Your task to perform on an android device: turn off priority inbox in the gmail app Image 0: 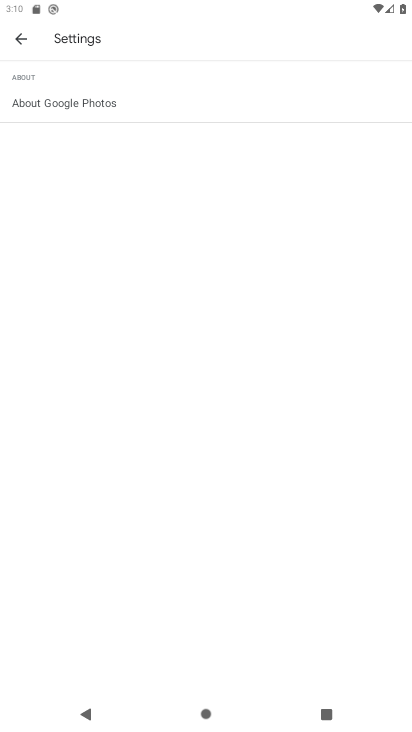
Step 0: press home button
Your task to perform on an android device: turn off priority inbox in the gmail app Image 1: 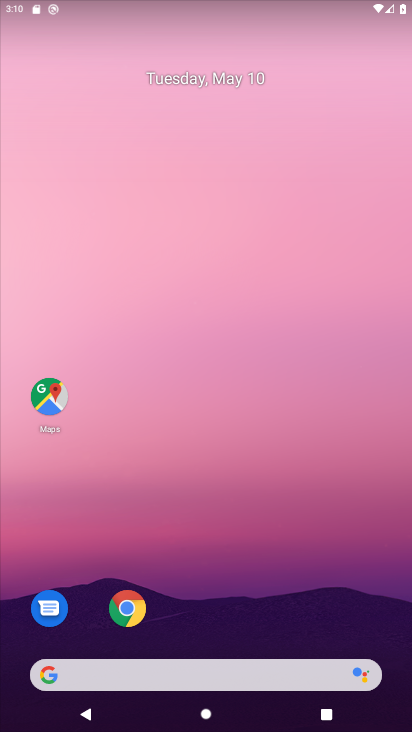
Step 1: drag from (176, 645) to (243, 171)
Your task to perform on an android device: turn off priority inbox in the gmail app Image 2: 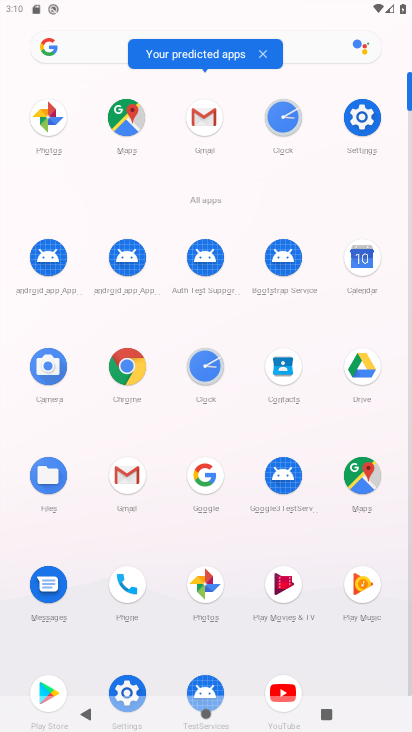
Step 2: click (128, 475)
Your task to perform on an android device: turn off priority inbox in the gmail app Image 3: 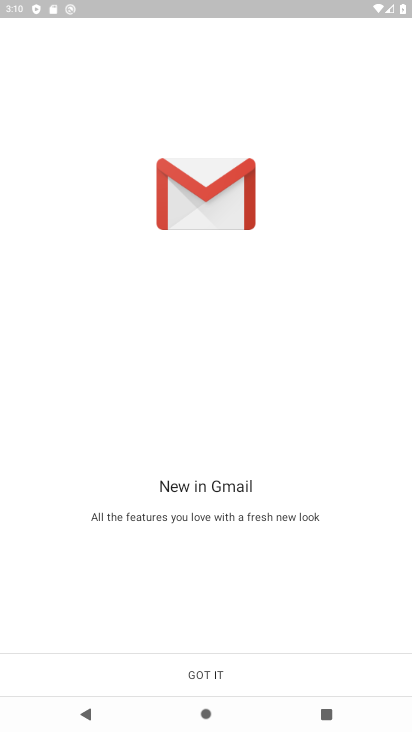
Step 3: click (217, 670)
Your task to perform on an android device: turn off priority inbox in the gmail app Image 4: 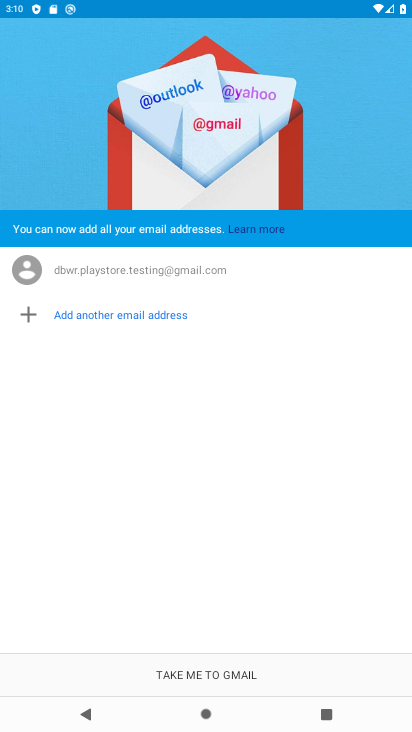
Step 4: click (217, 670)
Your task to perform on an android device: turn off priority inbox in the gmail app Image 5: 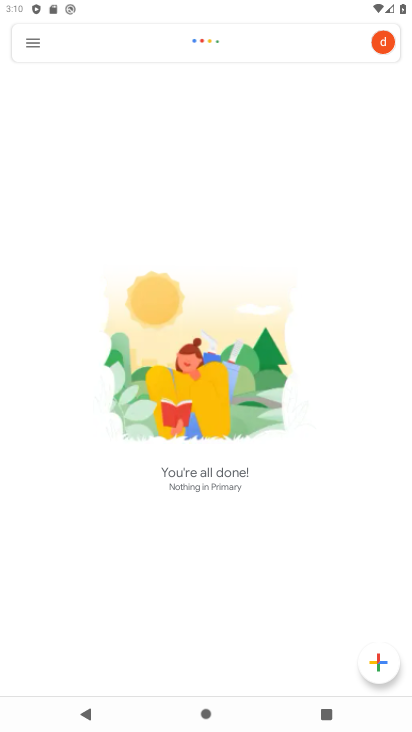
Step 5: click (41, 46)
Your task to perform on an android device: turn off priority inbox in the gmail app Image 6: 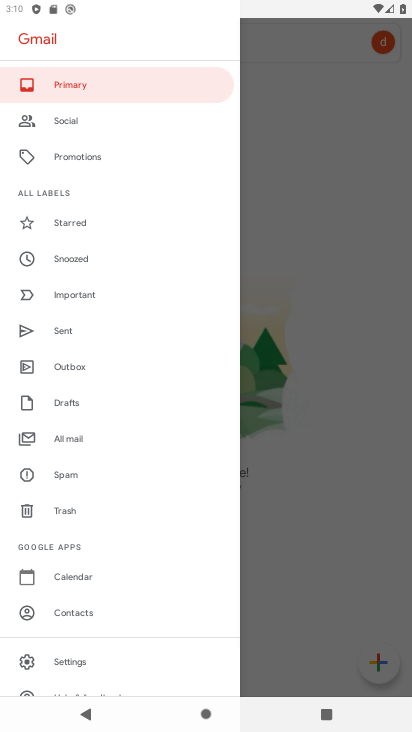
Step 6: drag from (133, 646) to (174, 457)
Your task to perform on an android device: turn off priority inbox in the gmail app Image 7: 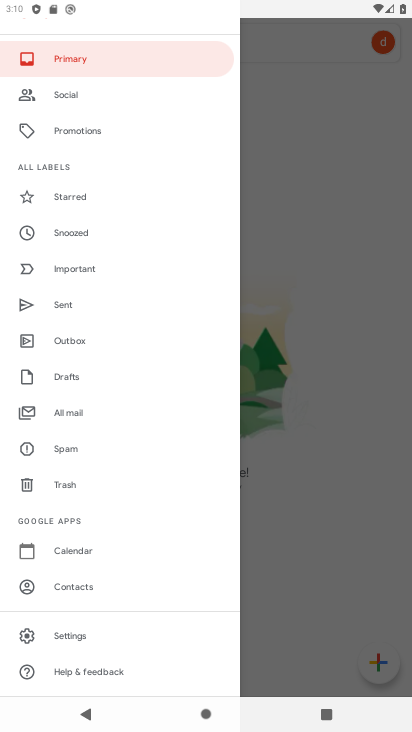
Step 7: click (107, 632)
Your task to perform on an android device: turn off priority inbox in the gmail app Image 8: 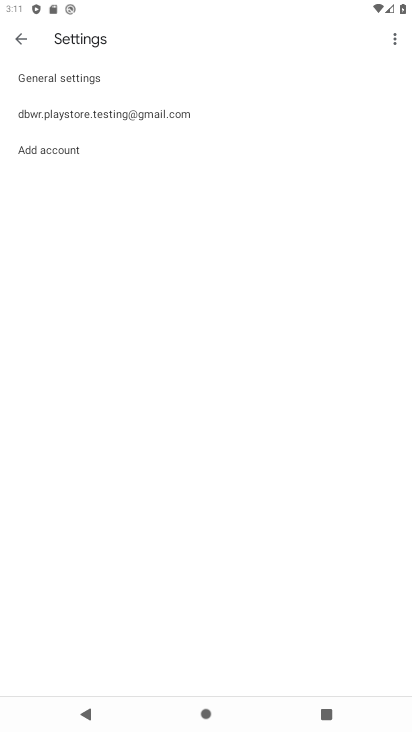
Step 8: click (179, 113)
Your task to perform on an android device: turn off priority inbox in the gmail app Image 9: 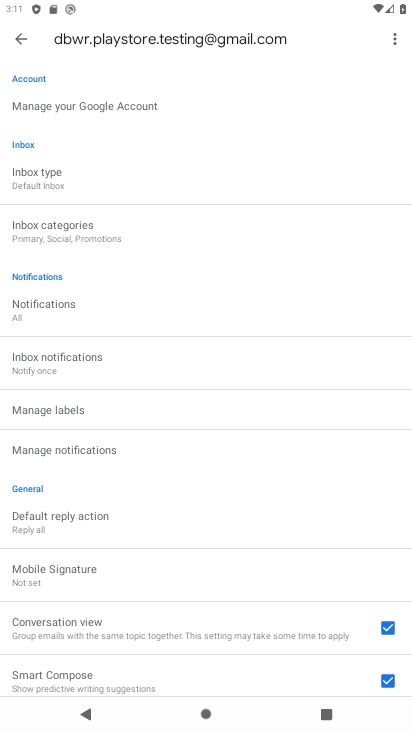
Step 9: task complete